Your task to perform on an android device: turn notification dots on Image 0: 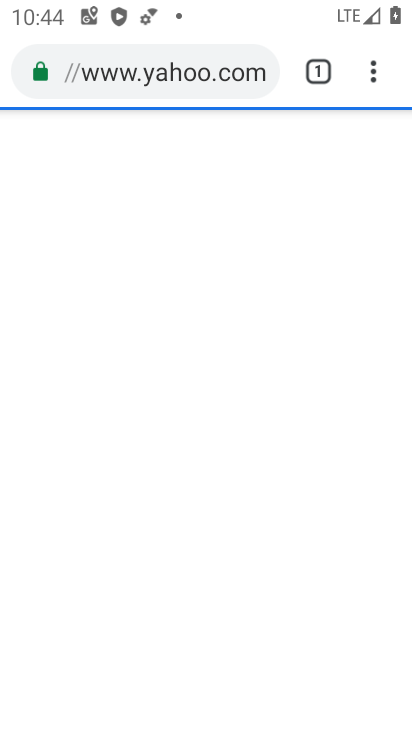
Step 0: press home button
Your task to perform on an android device: turn notification dots on Image 1: 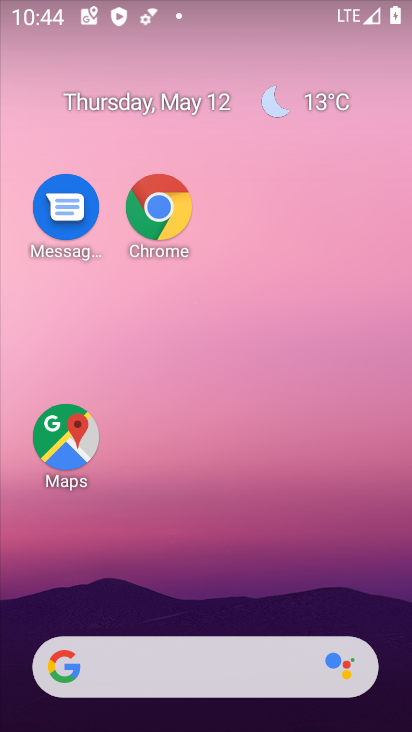
Step 1: drag from (206, 628) to (122, 1)
Your task to perform on an android device: turn notification dots on Image 2: 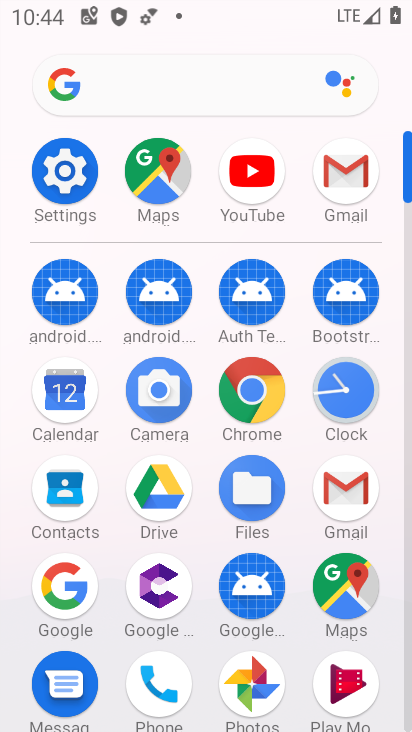
Step 2: click (63, 161)
Your task to perform on an android device: turn notification dots on Image 3: 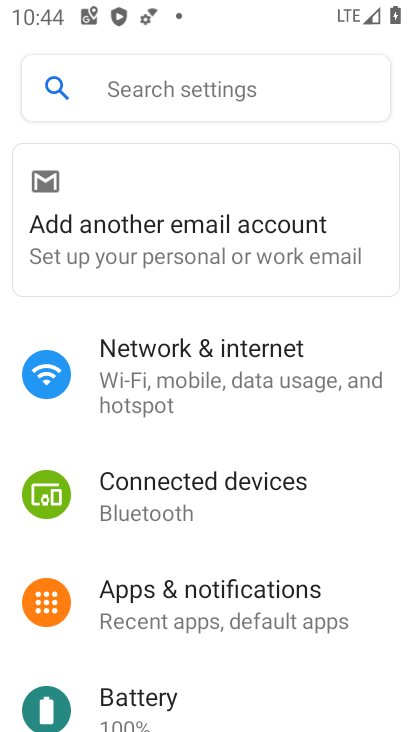
Step 3: drag from (207, 536) to (195, 439)
Your task to perform on an android device: turn notification dots on Image 4: 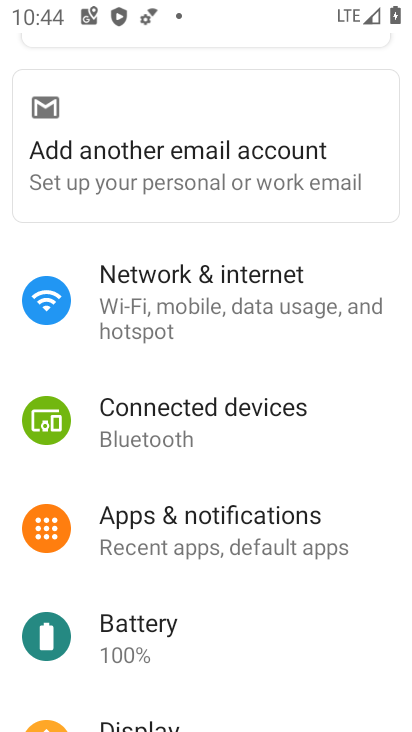
Step 4: click (194, 507)
Your task to perform on an android device: turn notification dots on Image 5: 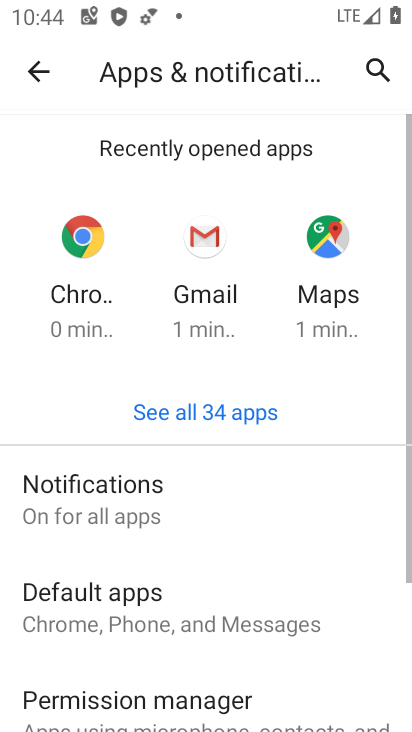
Step 5: click (194, 500)
Your task to perform on an android device: turn notification dots on Image 6: 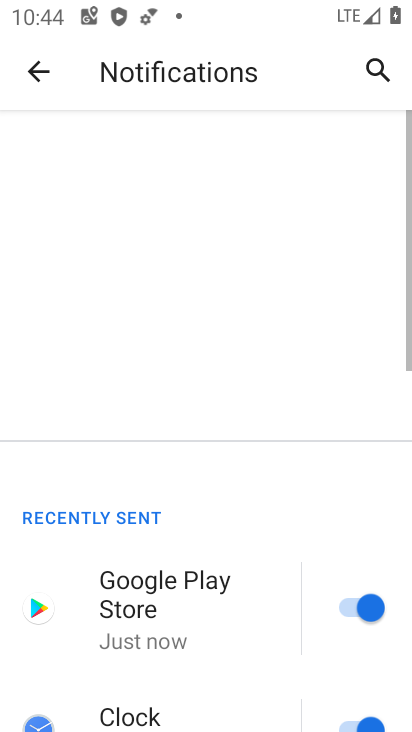
Step 6: drag from (193, 662) to (80, 5)
Your task to perform on an android device: turn notification dots on Image 7: 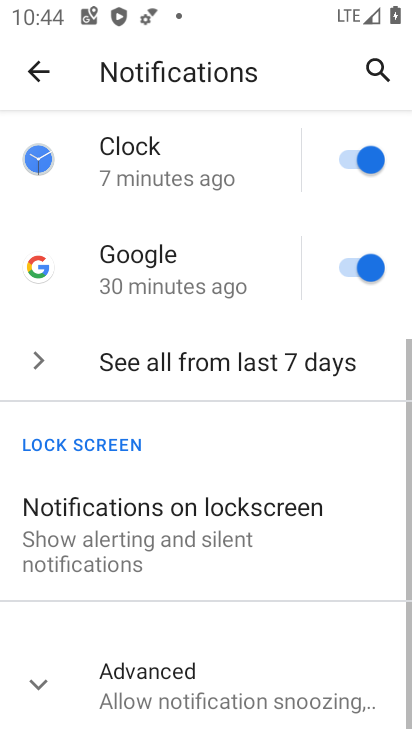
Step 7: click (183, 665)
Your task to perform on an android device: turn notification dots on Image 8: 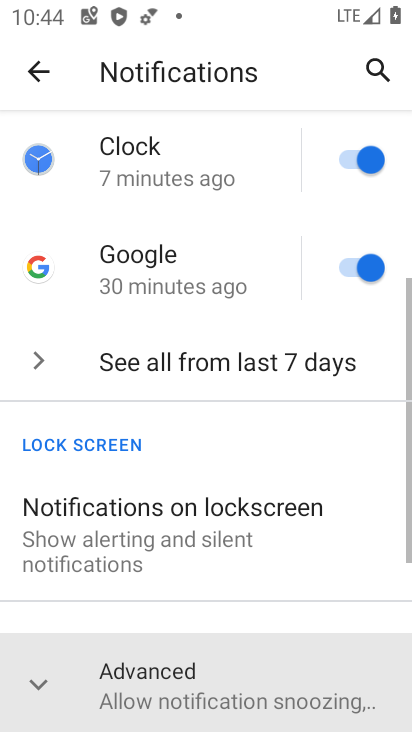
Step 8: task complete